Your task to perform on an android device: What's the weather going to be this weekend? Image 0: 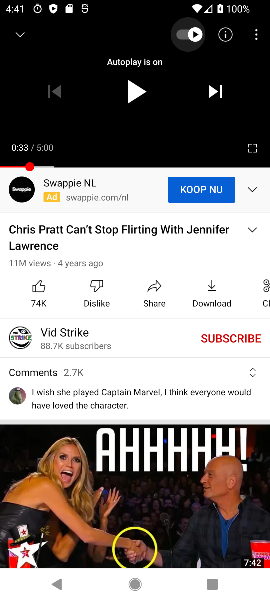
Step 0: press back button
Your task to perform on an android device: What's the weather going to be this weekend? Image 1: 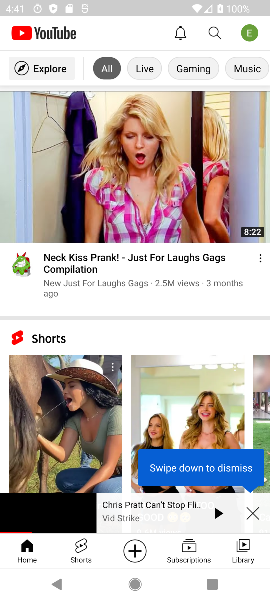
Step 1: press home button
Your task to perform on an android device: What's the weather going to be this weekend? Image 2: 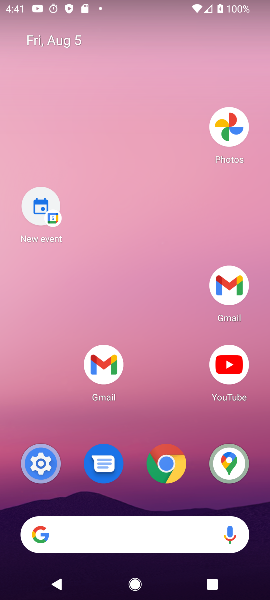
Step 2: drag from (143, 548) to (137, 136)
Your task to perform on an android device: What's the weather going to be this weekend? Image 3: 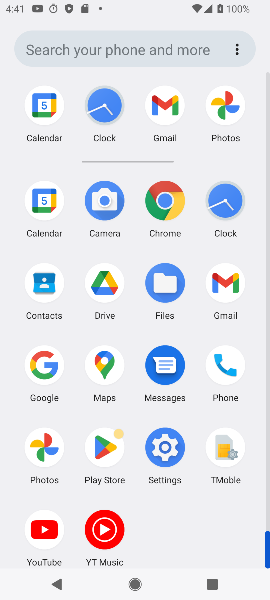
Step 3: click (160, 203)
Your task to perform on an android device: What's the weather going to be this weekend? Image 4: 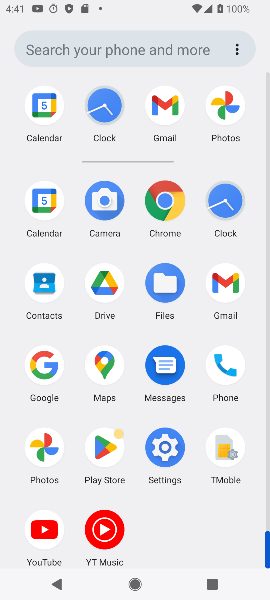
Step 4: click (160, 203)
Your task to perform on an android device: What's the weather going to be this weekend? Image 5: 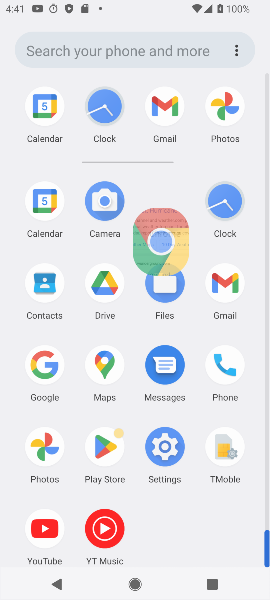
Step 5: click (164, 201)
Your task to perform on an android device: What's the weather going to be this weekend? Image 6: 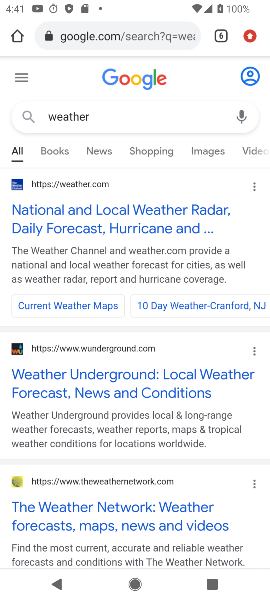
Step 6: click (165, 201)
Your task to perform on an android device: What's the weather going to be this weekend? Image 7: 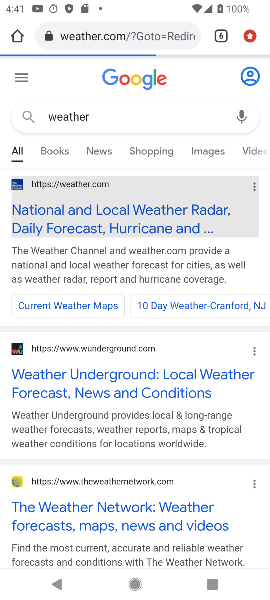
Step 7: click (86, 37)
Your task to perform on an android device: What's the weather going to be this weekend? Image 8: 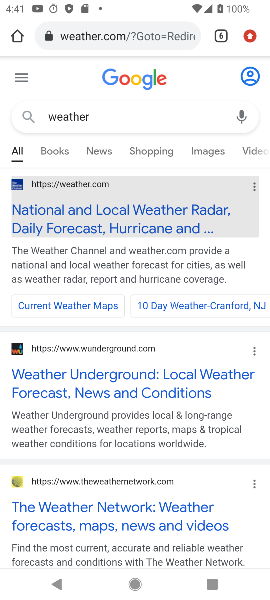
Step 8: click (88, 37)
Your task to perform on an android device: What's the weather going to be this weekend? Image 9: 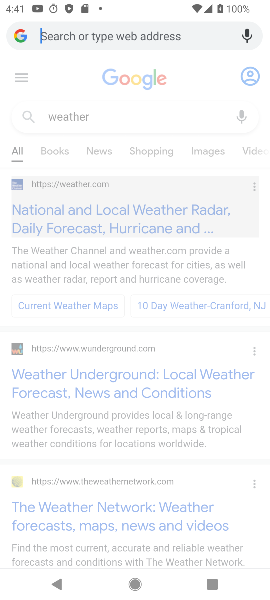
Step 9: click (91, 37)
Your task to perform on an android device: What's the weather going to be this weekend? Image 10: 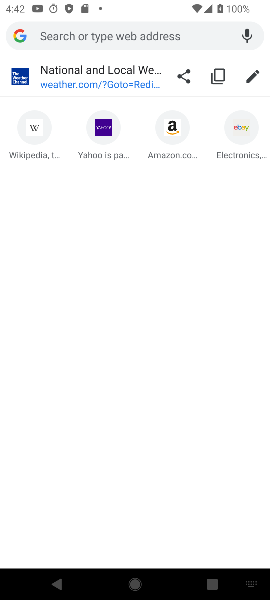
Step 10: type "whats the weasther going to be this weekend?"
Your task to perform on an android device: What's the weather going to be this weekend? Image 11: 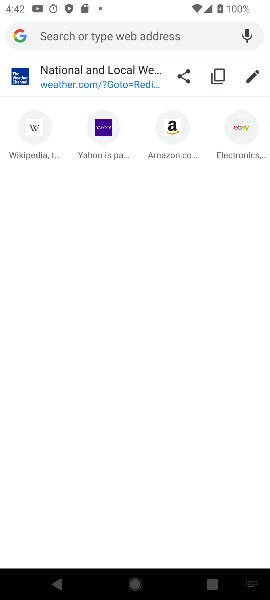
Step 11: click (69, 36)
Your task to perform on an android device: What's the weather going to be this weekend? Image 12: 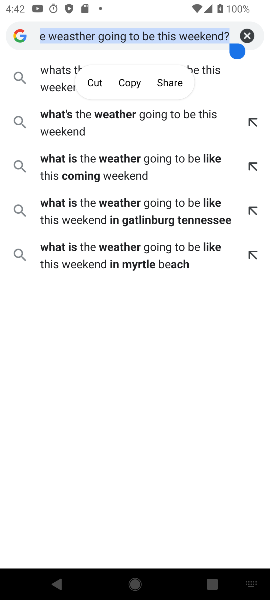
Step 12: click (43, 86)
Your task to perform on an android device: What's the weather going to be this weekend? Image 13: 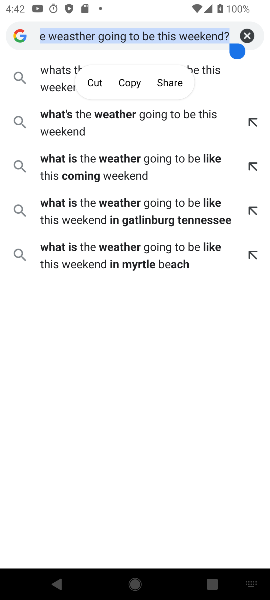
Step 13: click (43, 86)
Your task to perform on an android device: What's the weather going to be this weekend? Image 14: 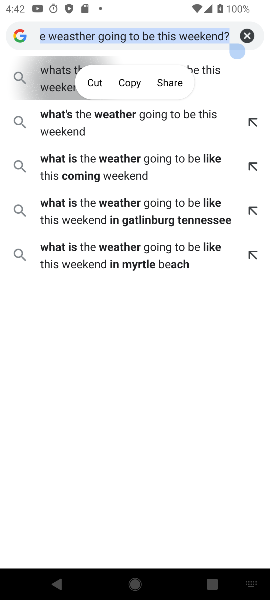
Step 14: click (43, 86)
Your task to perform on an android device: What's the weather going to be this weekend? Image 15: 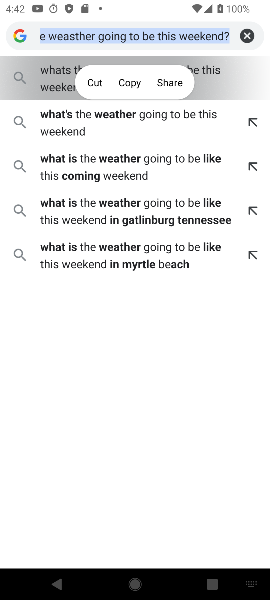
Step 15: click (43, 86)
Your task to perform on an android device: What's the weather going to be this weekend? Image 16: 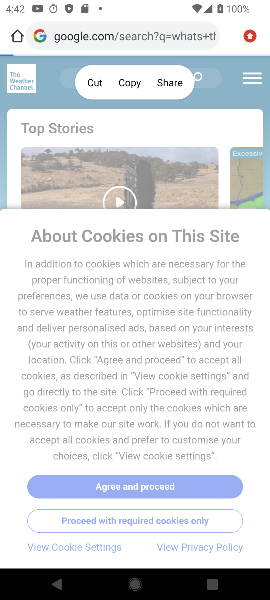
Step 16: click (43, 86)
Your task to perform on an android device: What's the weather going to be this weekend? Image 17: 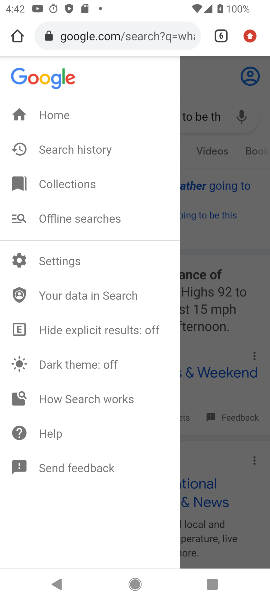
Step 17: task complete